Your task to perform on an android device: Open internet settings Image 0: 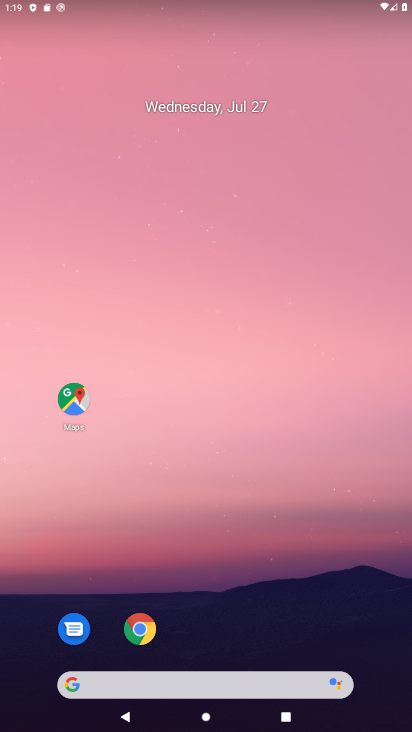
Step 0: press home button
Your task to perform on an android device: Open internet settings Image 1: 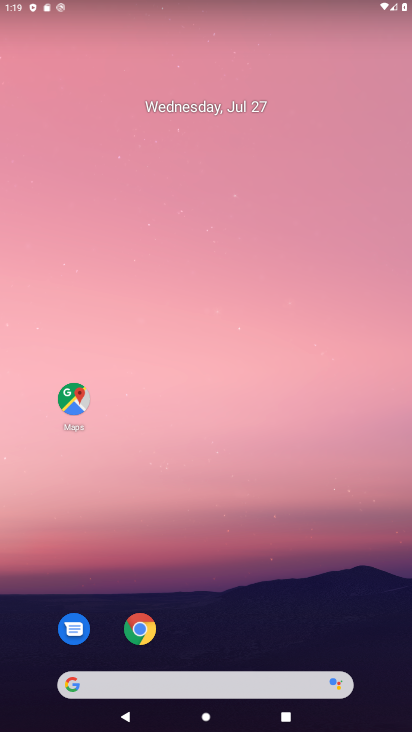
Step 1: drag from (232, 651) to (196, 209)
Your task to perform on an android device: Open internet settings Image 2: 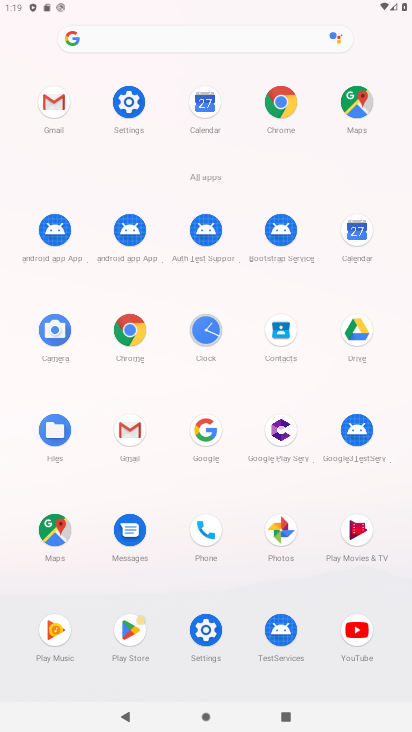
Step 2: click (138, 94)
Your task to perform on an android device: Open internet settings Image 3: 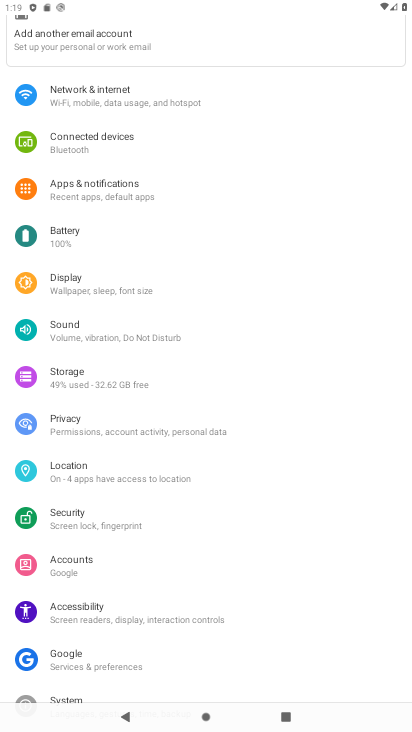
Step 3: click (81, 94)
Your task to perform on an android device: Open internet settings Image 4: 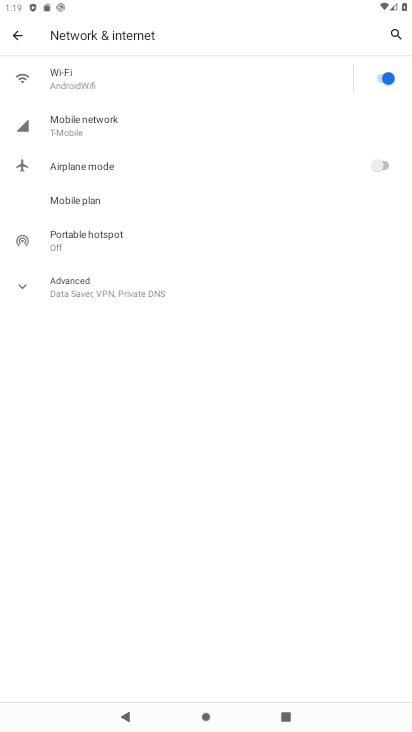
Step 4: task complete